Your task to perform on an android device: Search for sushi restaurants on Maps Image 0: 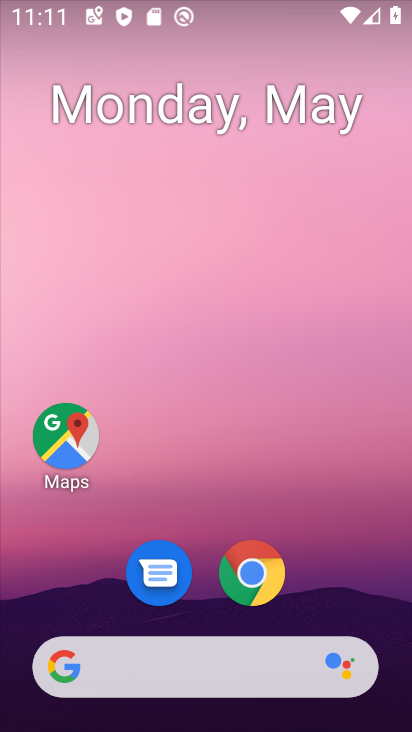
Step 0: click (75, 432)
Your task to perform on an android device: Search for sushi restaurants on Maps Image 1: 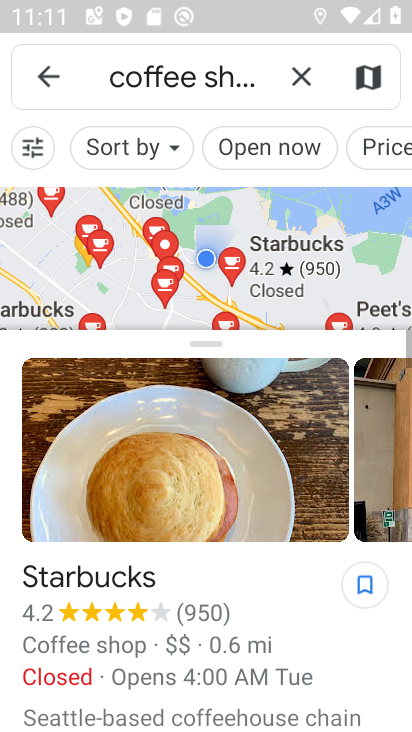
Step 1: click (299, 75)
Your task to perform on an android device: Search for sushi restaurants on Maps Image 2: 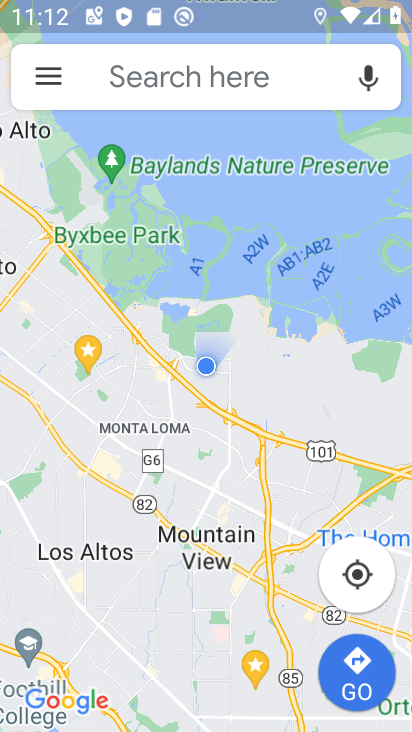
Step 2: click (235, 77)
Your task to perform on an android device: Search for sushi restaurants on Maps Image 3: 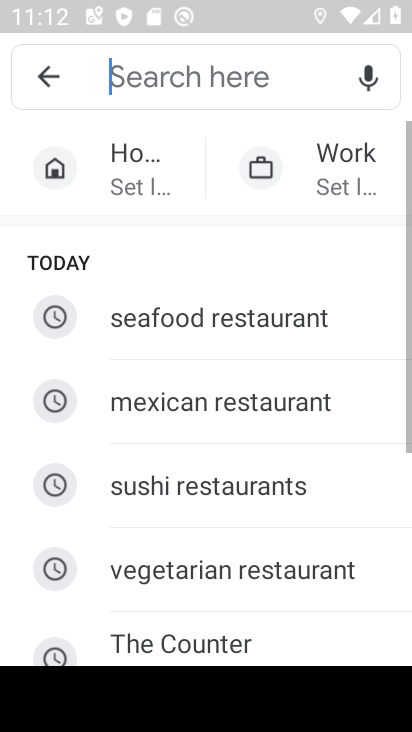
Step 3: click (221, 475)
Your task to perform on an android device: Search for sushi restaurants on Maps Image 4: 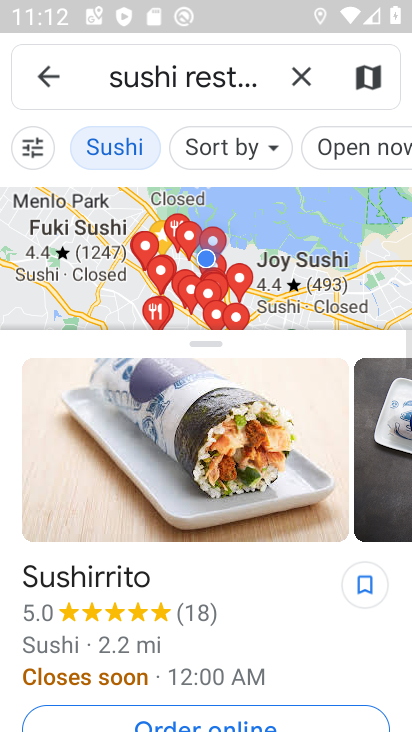
Step 4: task complete